Your task to perform on an android device: change the clock display to analog Image 0: 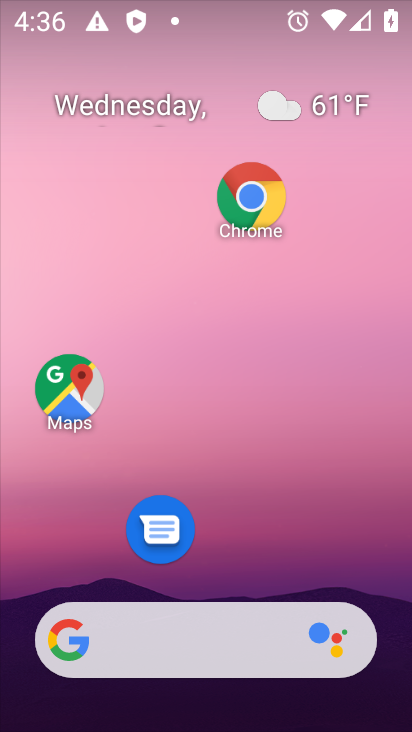
Step 0: drag from (244, 475) to (294, 0)
Your task to perform on an android device: change the clock display to analog Image 1: 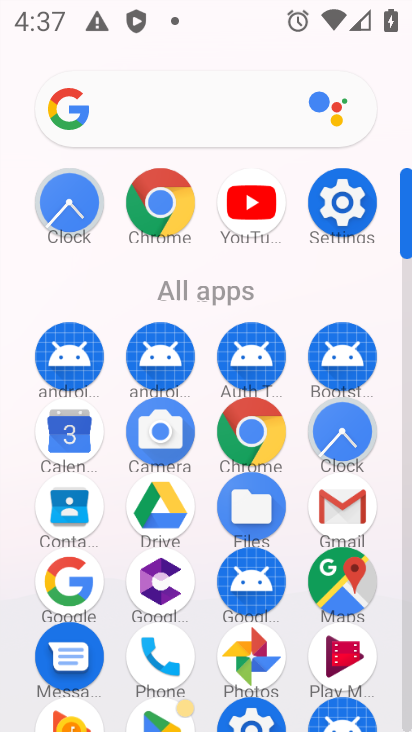
Step 1: click (336, 434)
Your task to perform on an android device: change the clock display to analog Image 2: 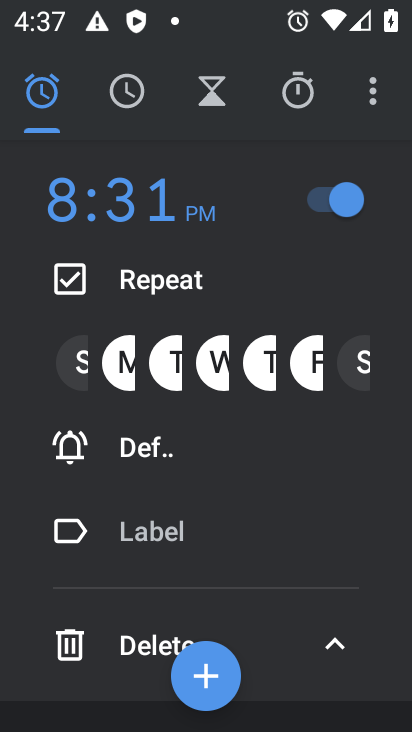
Step 2: click (369, 89)
Your task to perform on an android device: change the clock display to analog Image 3: 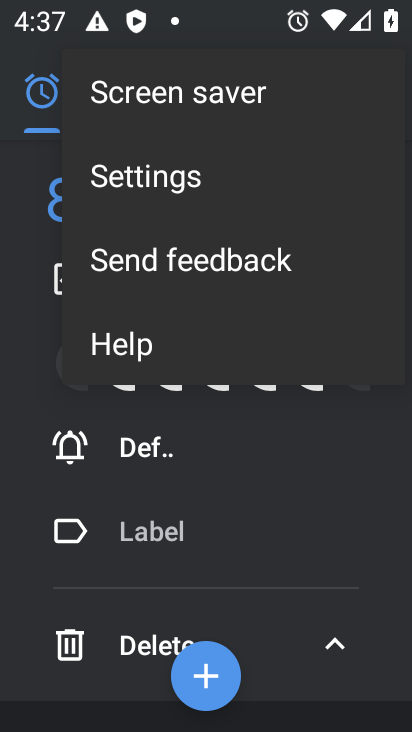
Step 3: click (117, 192)
Your task to perform on an android device: change the clock display to analog Image 4: 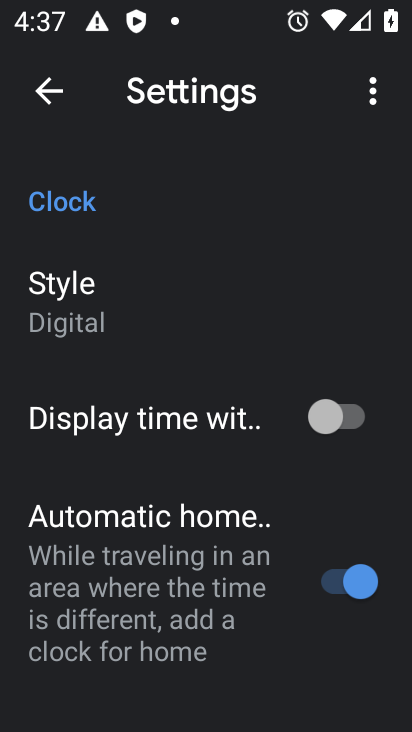
Step 4: click (107, 316)
Your task to perform on an android device: change the clock display to analog Image 5: 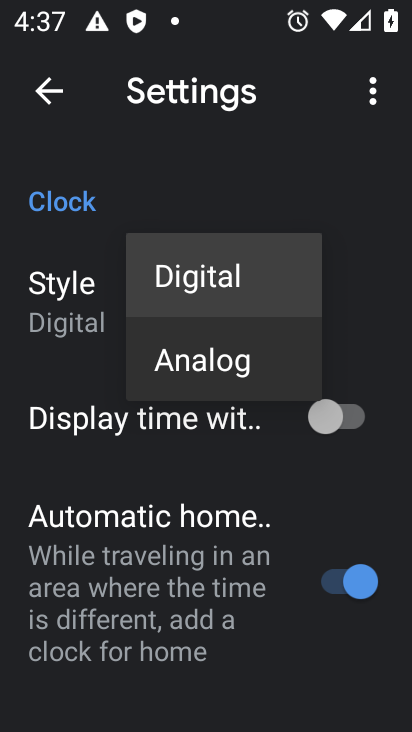
Step 5: click (161, 352)
Your task to perform on an android device: change the clock display to analog Image 6: 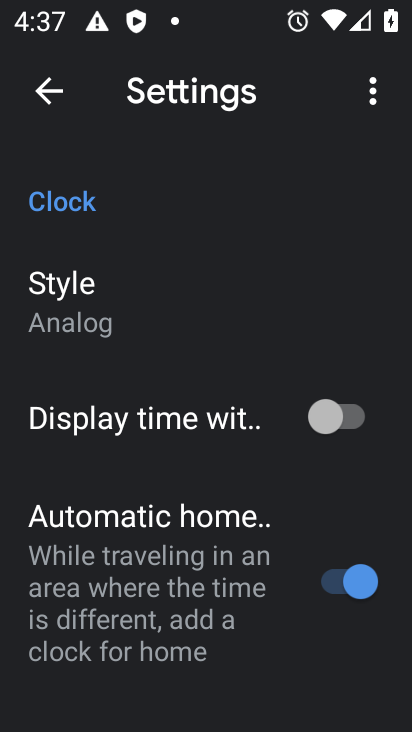
Step 6: task complete